Your task to perform on an android device: turn off sleep mode Image 0: 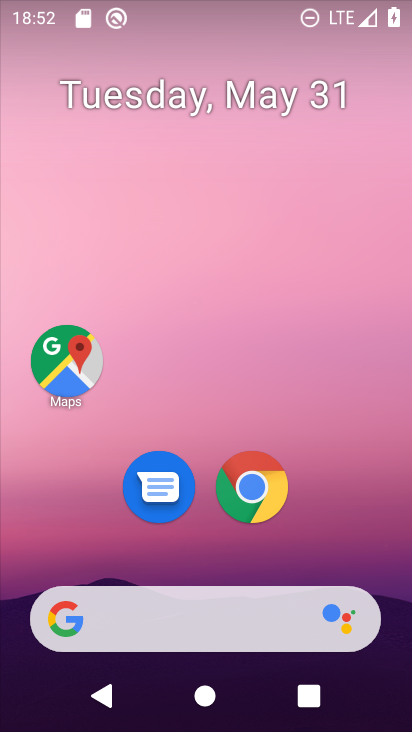
Step 0: drag from (291, 383) to (228, 99)
Your task to perform on an android device: turn off sleep mode Image 1: 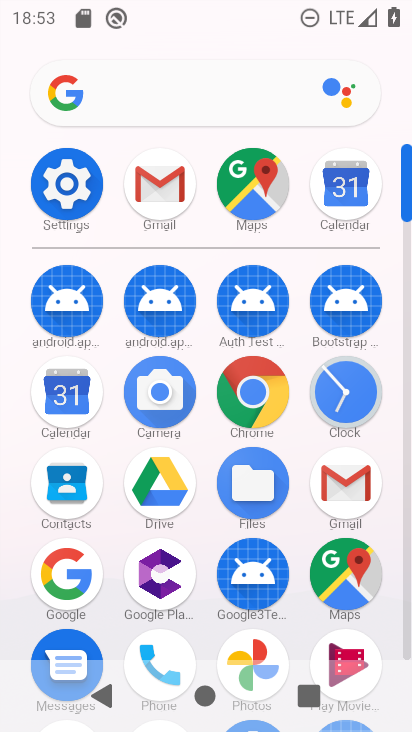
Step 1: click (79, 187)
Your task to perform on an android device: turn off sleep mode Image 2: 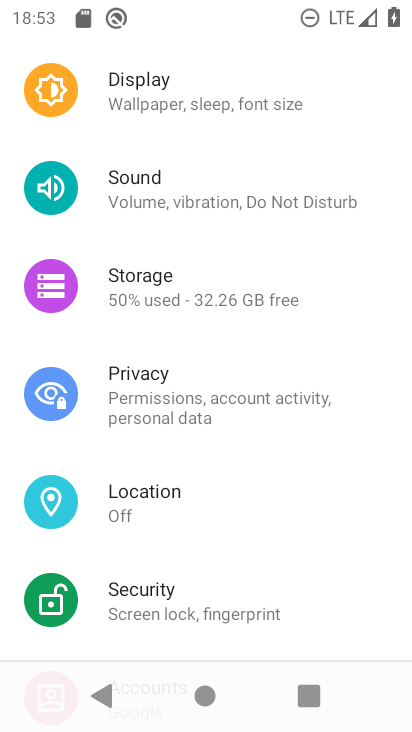
Step 2: click (159, 84)
Your task to perform on an android device: turn off sleep mode Image 3: 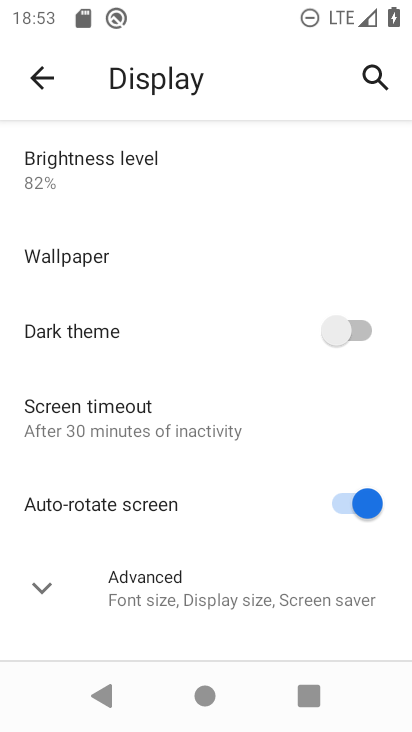
Step 3: task complete